Your task to perform on an android device: Check the weather Image 0: 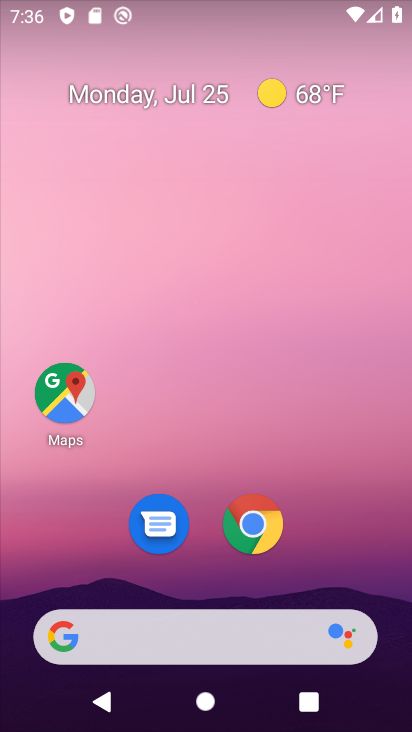
Step 0: click (212, 643)
Your task to perform on an android device: Check the weather Image 1: 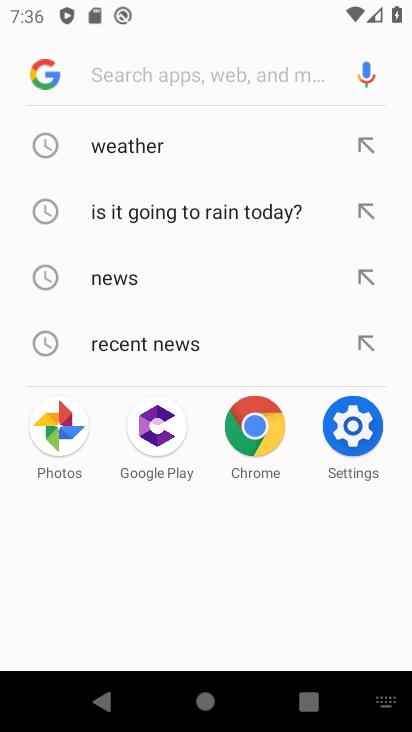
Step 1: click (110, 151)
Your task to perform on an android device: Check the weather Image 2: 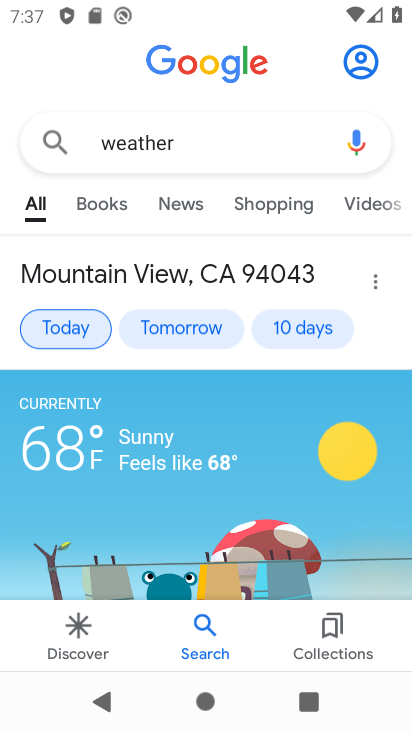
Step 2: click (94, 339)
Your task to perform on an android device: Check the weather Image 3: 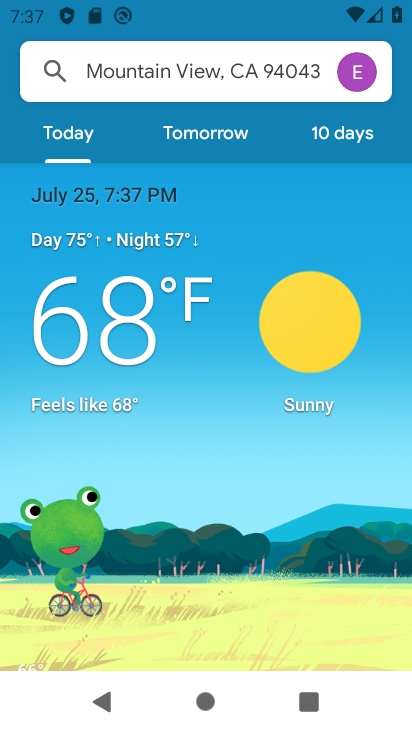
Step 3: task complete